Your task to perform on an android device: What is the news today? Image 0: 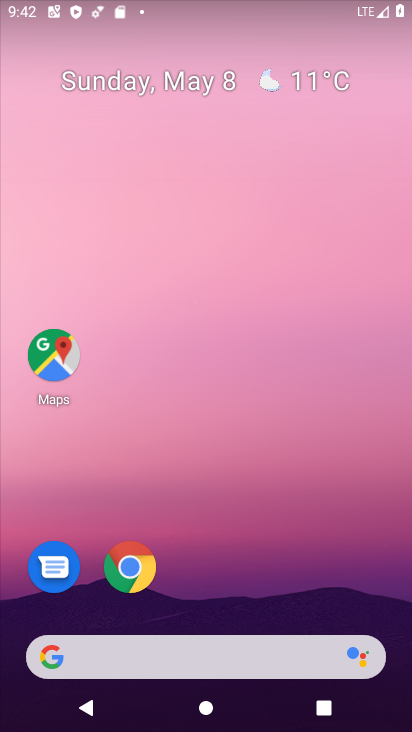
Step 0: click (175, 653)
Your task to perform on an android device: What is the news today? Image 1: 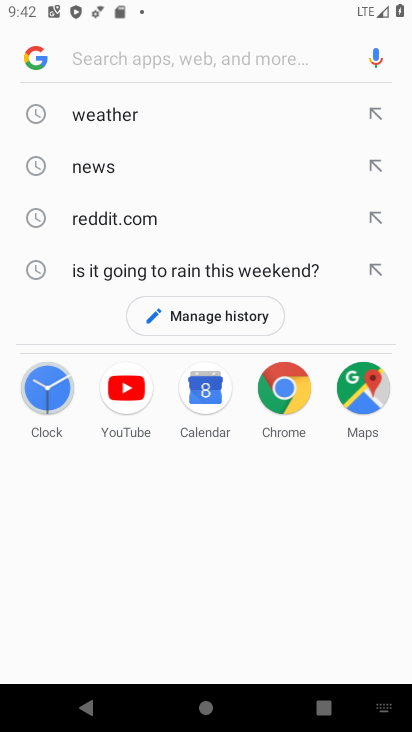
Step 1: click (114, 171)
Your task to perform on an android device: What is the news today? Image 2: 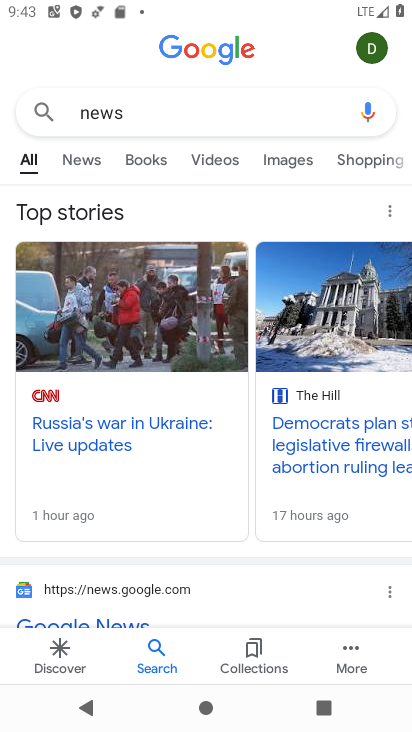
Step 2: task complete